Your task to perform on an android device: turn on priority inbox in the gmail app Image 0: 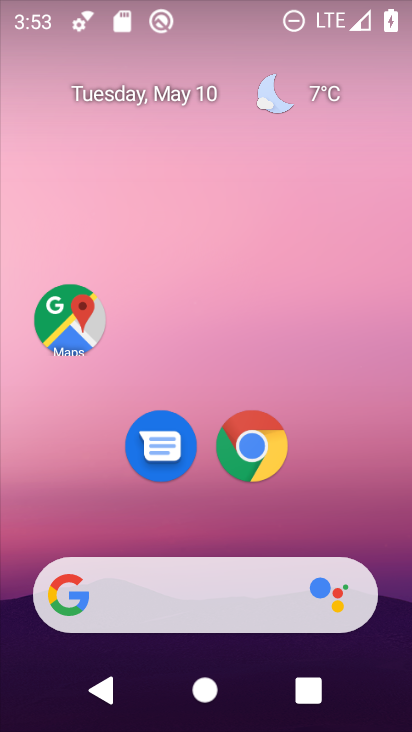
Step 0: drag from (257, 515) to (213, 51)
Your task to perform on an android device: turn on priority inbox in the gmail app Image 1: 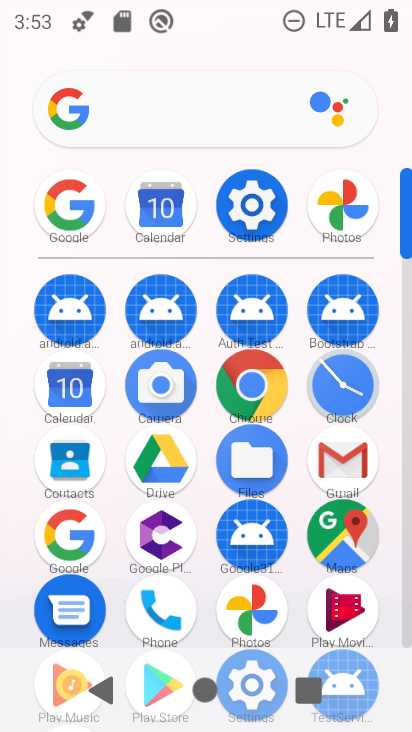
Step 1: click (343, 461)
Your task to perform on an android device: turn on priority inbox in the gmail app Image 2: 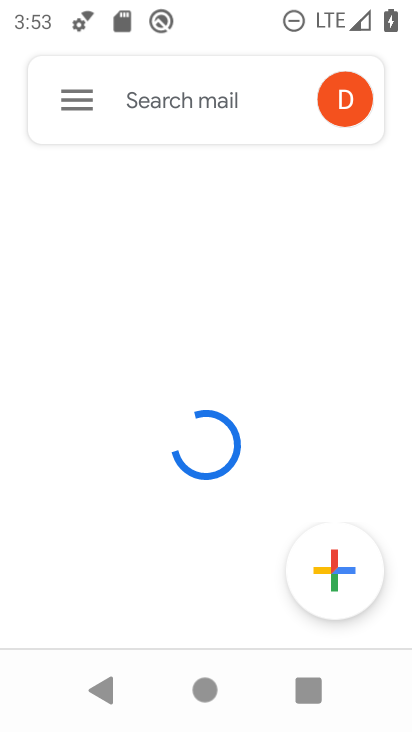
Step 2: click (73, 101)
Your task to perform on an android device: turn on priority inbox in the gmail app Image 3: 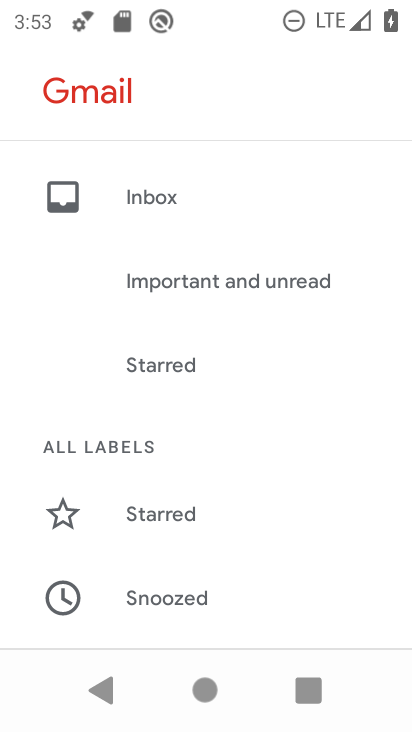
Step 3: drag from (186, 556) to (205, 27)
Your task to perform on an android device: turn on priority inbox in the gmail app Image 4: 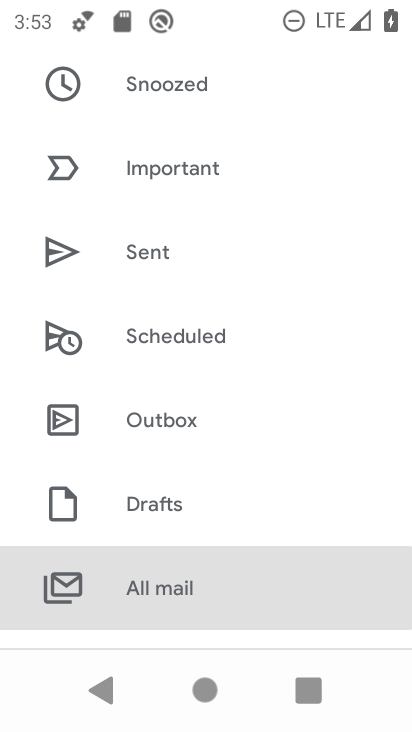
Step 4: drag from (190, 501) to (237, 95)
Your task to perform on an android device: turn on priority inbox in the gmail app Image 5: 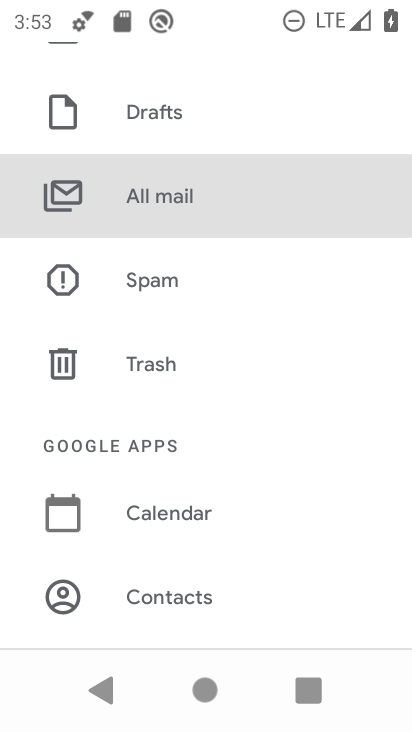
Step 5: drag from (185, 562) to (209, 199)
Your task to perform on an android device: turn on priority inbox in the gmail app Image 6: 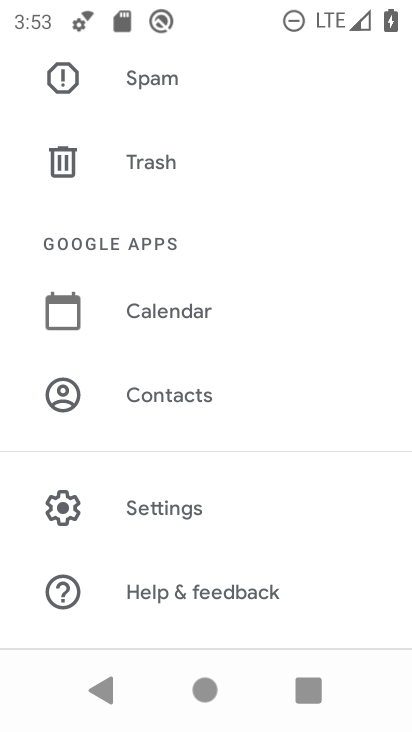
Step 6: click (179, 508)
Your task to perform on an android device: turn on priority inbox in the gmail app Image 7: 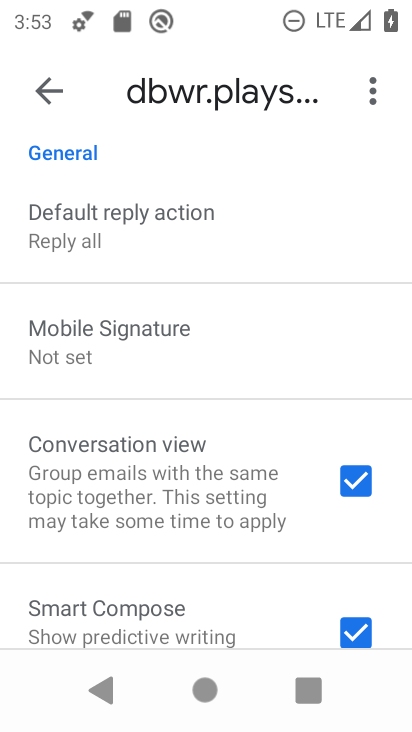
Step 7: drag from (169, 239) to (174, 593)
Your task to perform on an android device: turn on priority inbox in the gmail app Image 8: 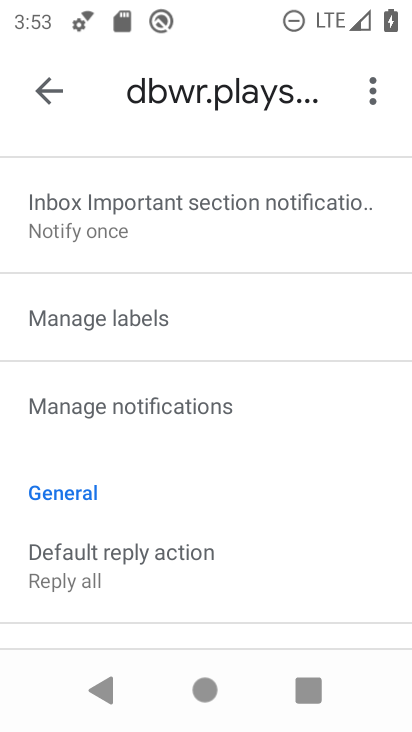
Step 8: drag from (183, 254) to (161, 680)
Your task to perform on an android device: turn on priority inbox in the gmail app Image 9: 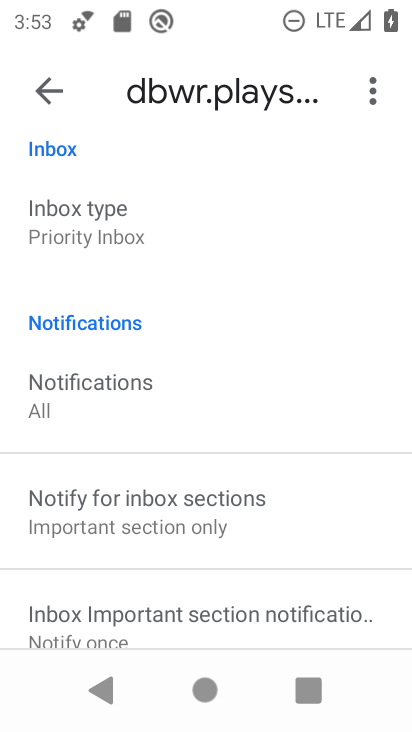
Step 9: click (119, 222)
Your task to perform on an android device: turn on priority inbox in the gmail app Image 10: 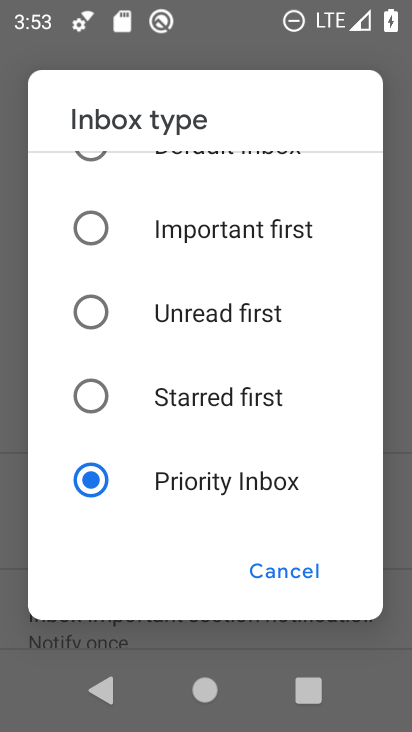
Step 10: task complete